Your task to perform on an android device: Search for the best pizza restaurants on Maps Image 0: 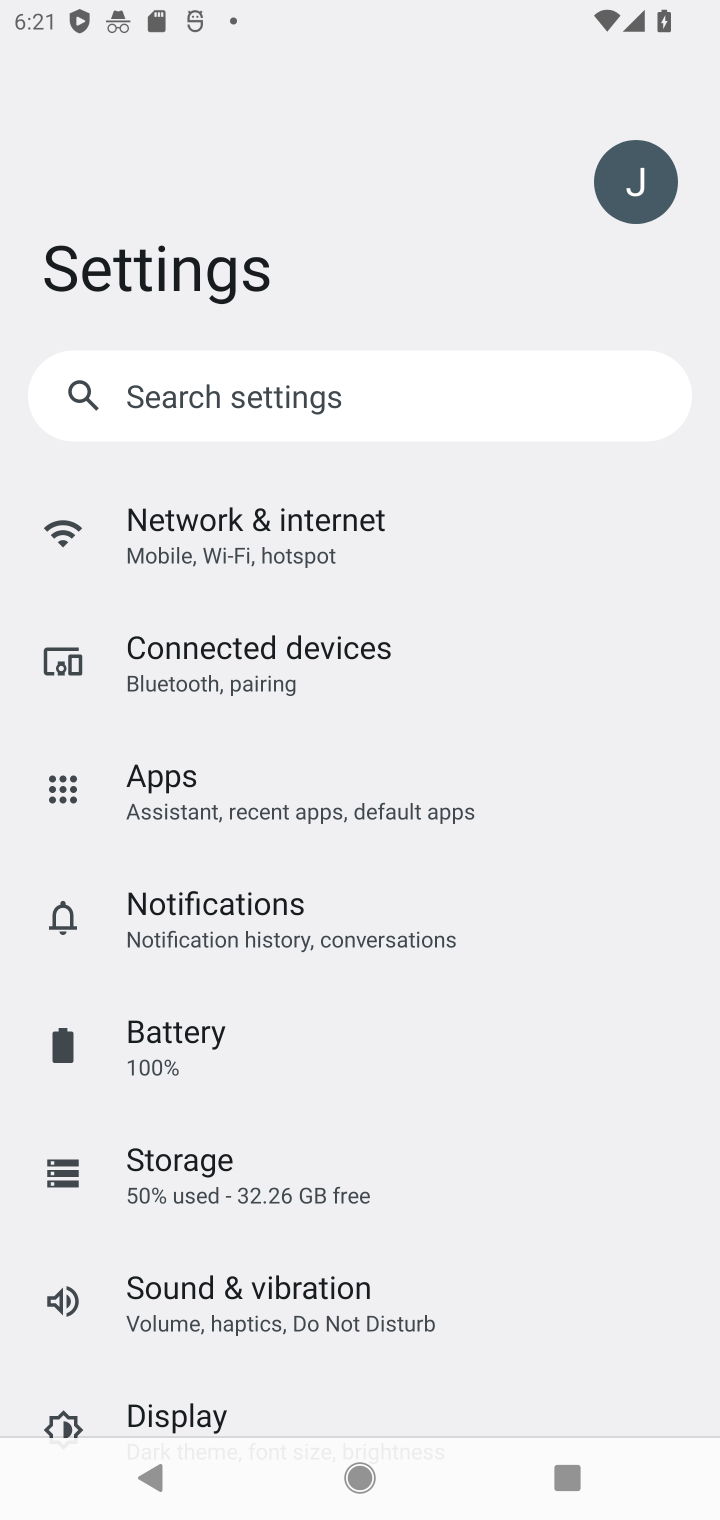
Step 0: press home button
Your task to perform on an android device: Search for the best pizza restaurants on Maps Image 1: 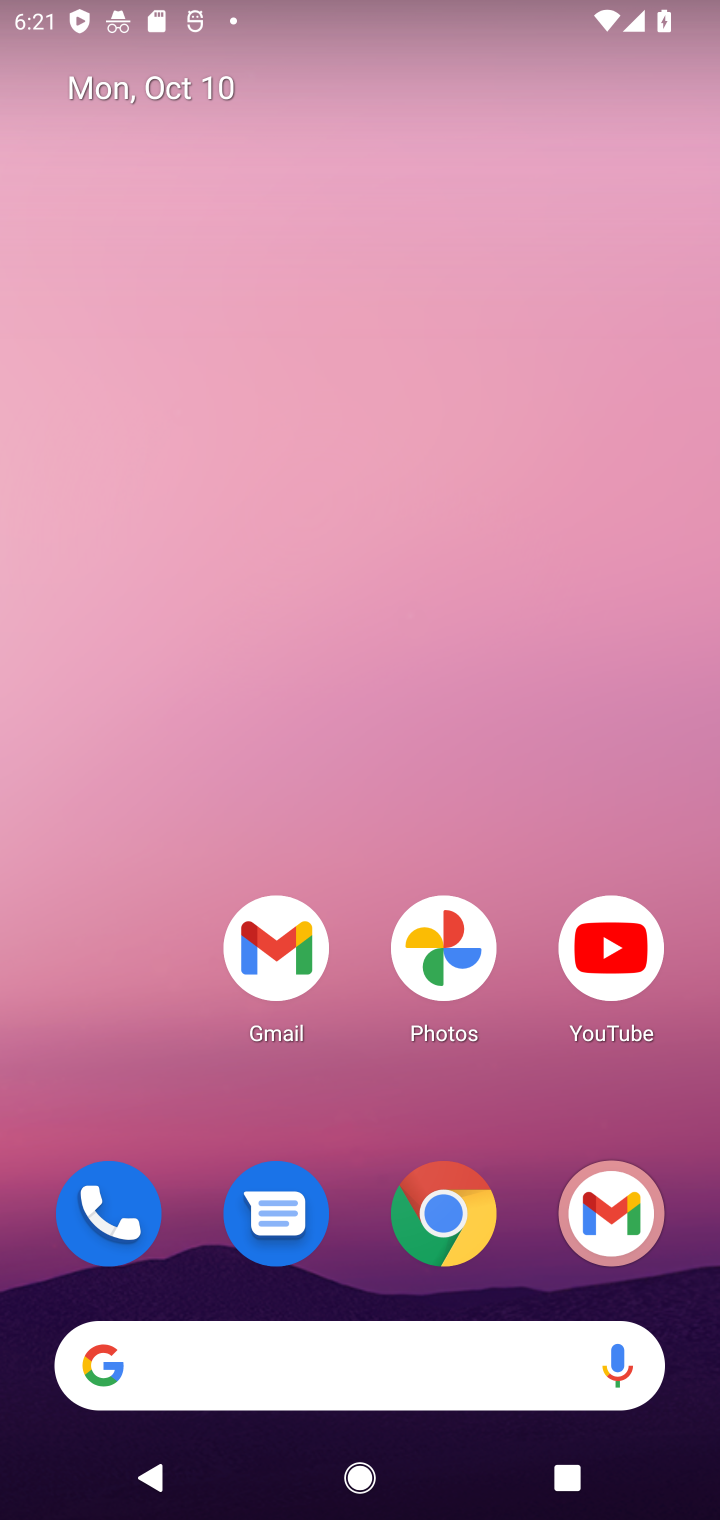
Step 1: drag from (264, 704) to (350, 118)
Your task to perform on an android device: Search for the best pizza restaurants on Maps Image 2: 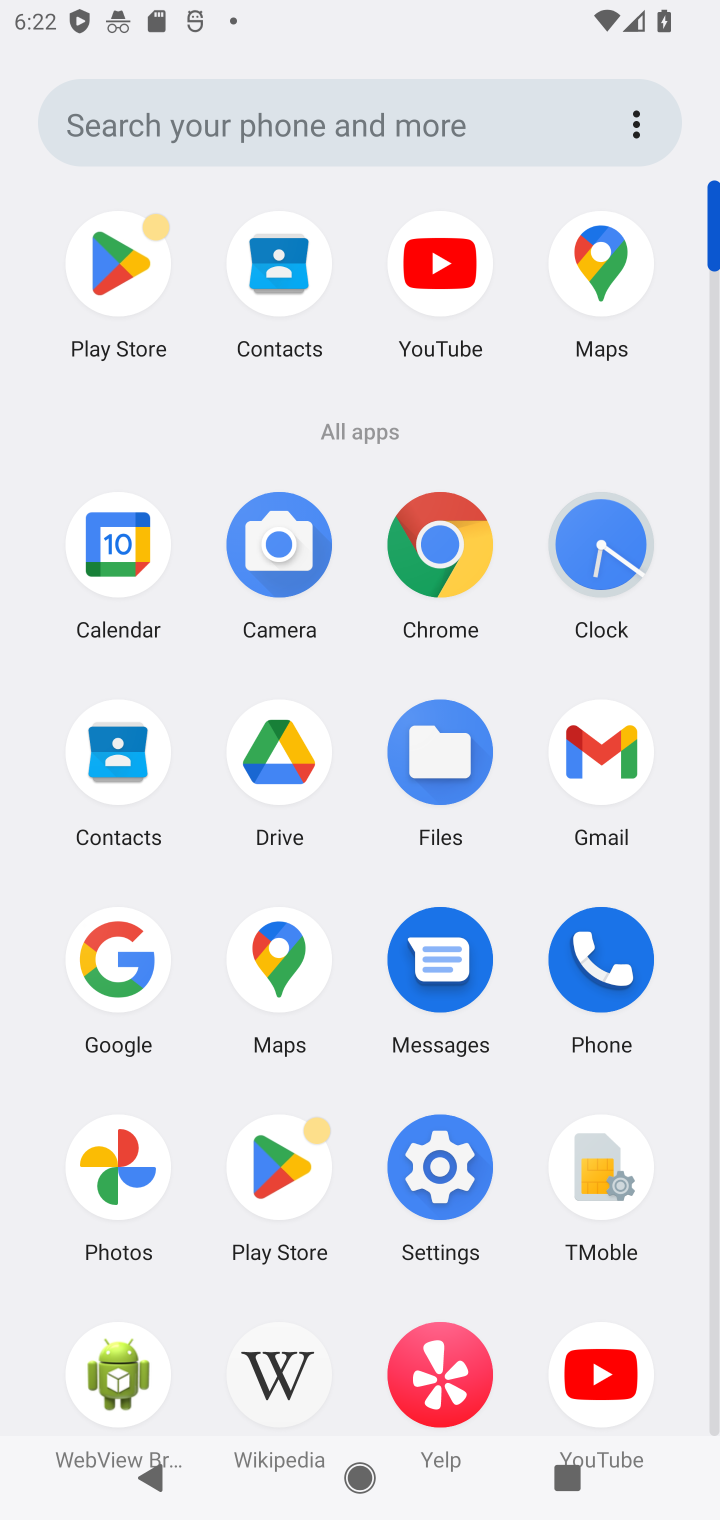
Step 2: click (598, 280)
Your task to perform on an android device: Search for the best pizza restaurants on Maps Image 3: 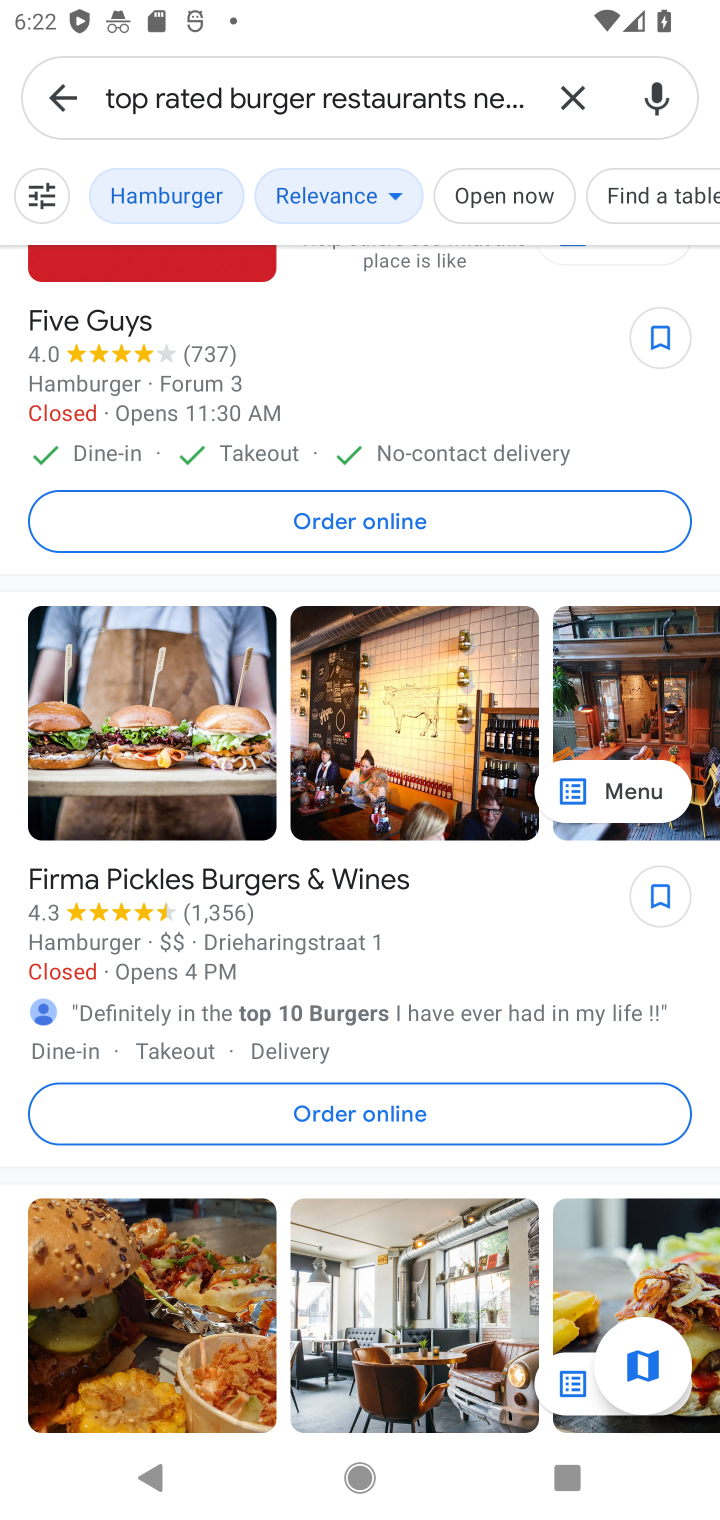
Step 3: click (553, 84)
Your task to perform on an android device: Search for the best pizza restaurants on Maps Image 4: 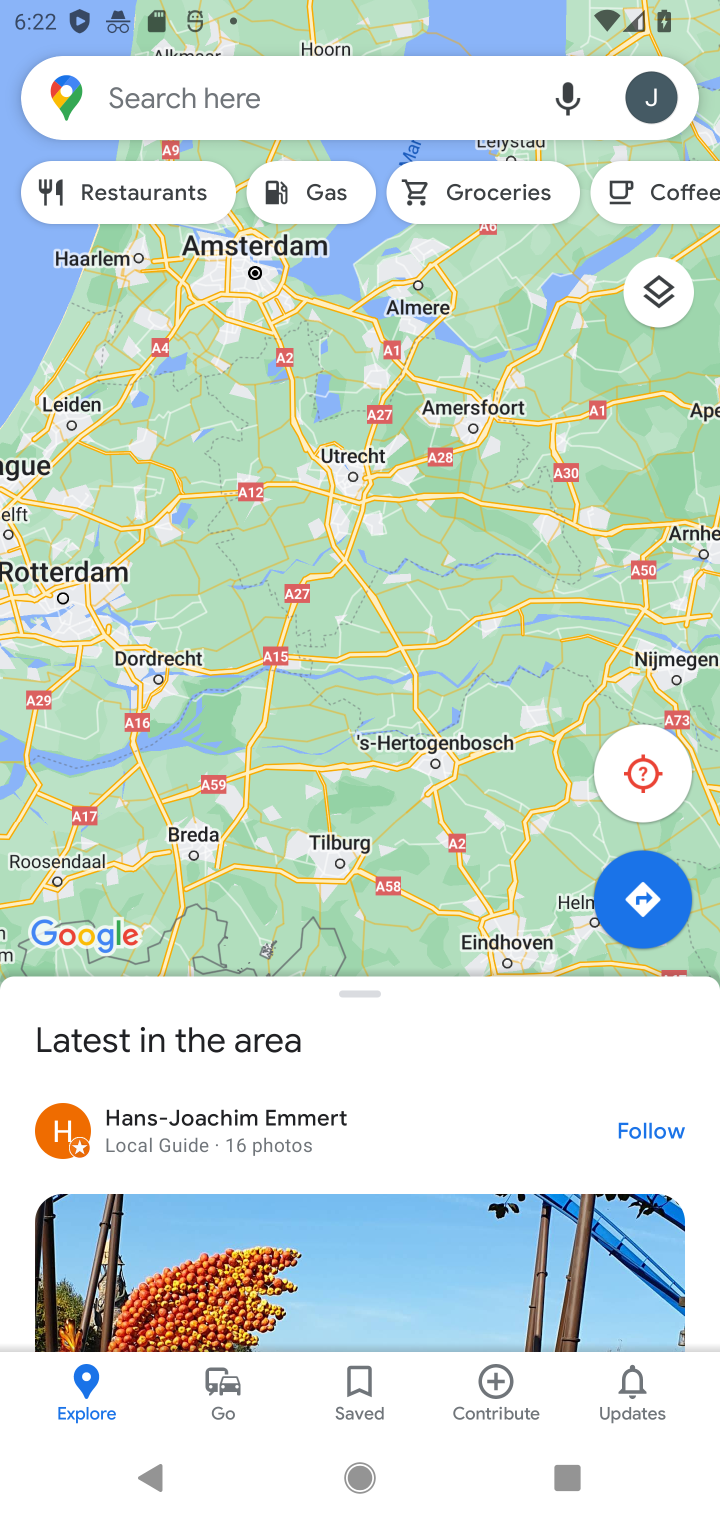
Step 4: click (167, 81)
Your task to perform on an android device: Search for the best pizza restaurants on Maps Image 5: 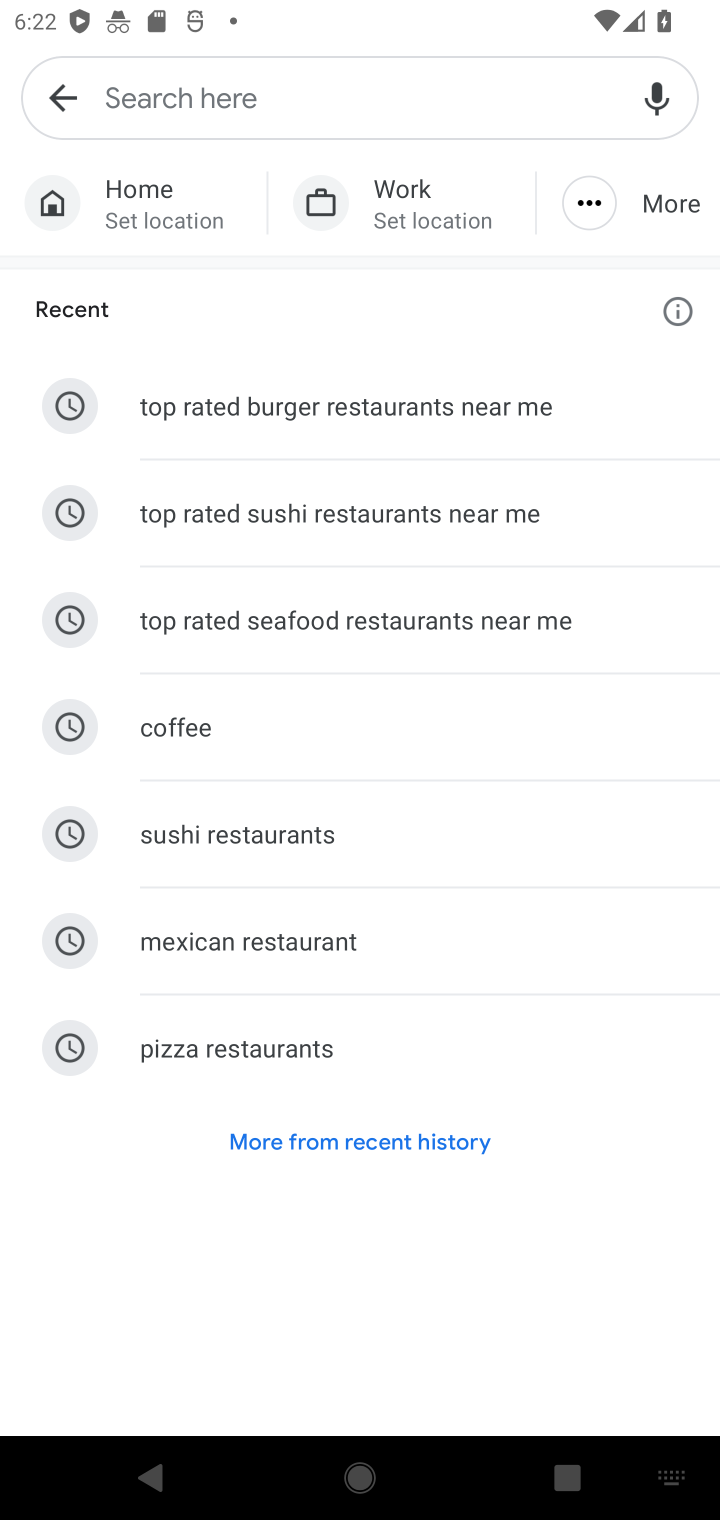
Step 5: click (206, 98)
Your task to perform on an android device: Search for the best pizza restaurants on Maps Image 6: 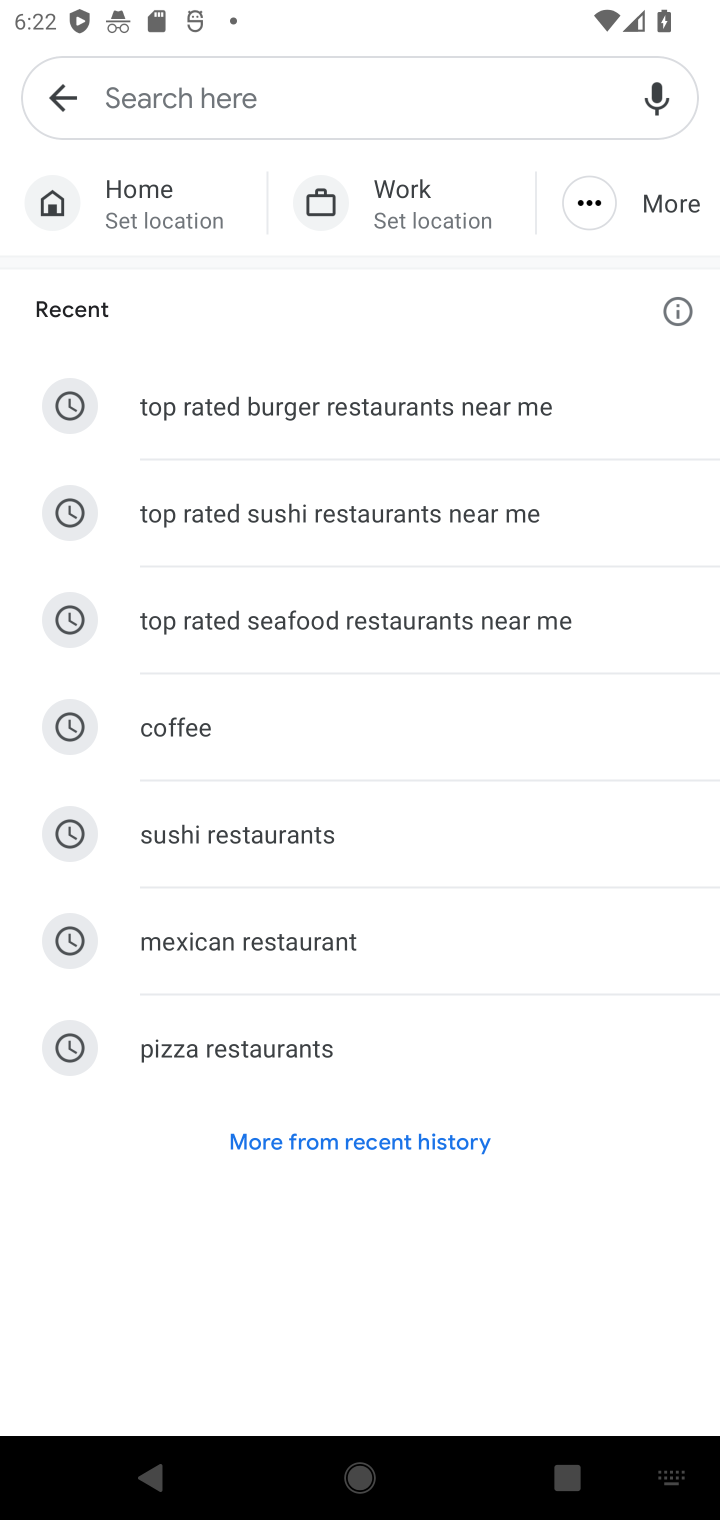
Step 6: type " pizza restaurants on Maps"
Your task to perform on an android device: Search for the best pizza restaurants on Maps Image 7: 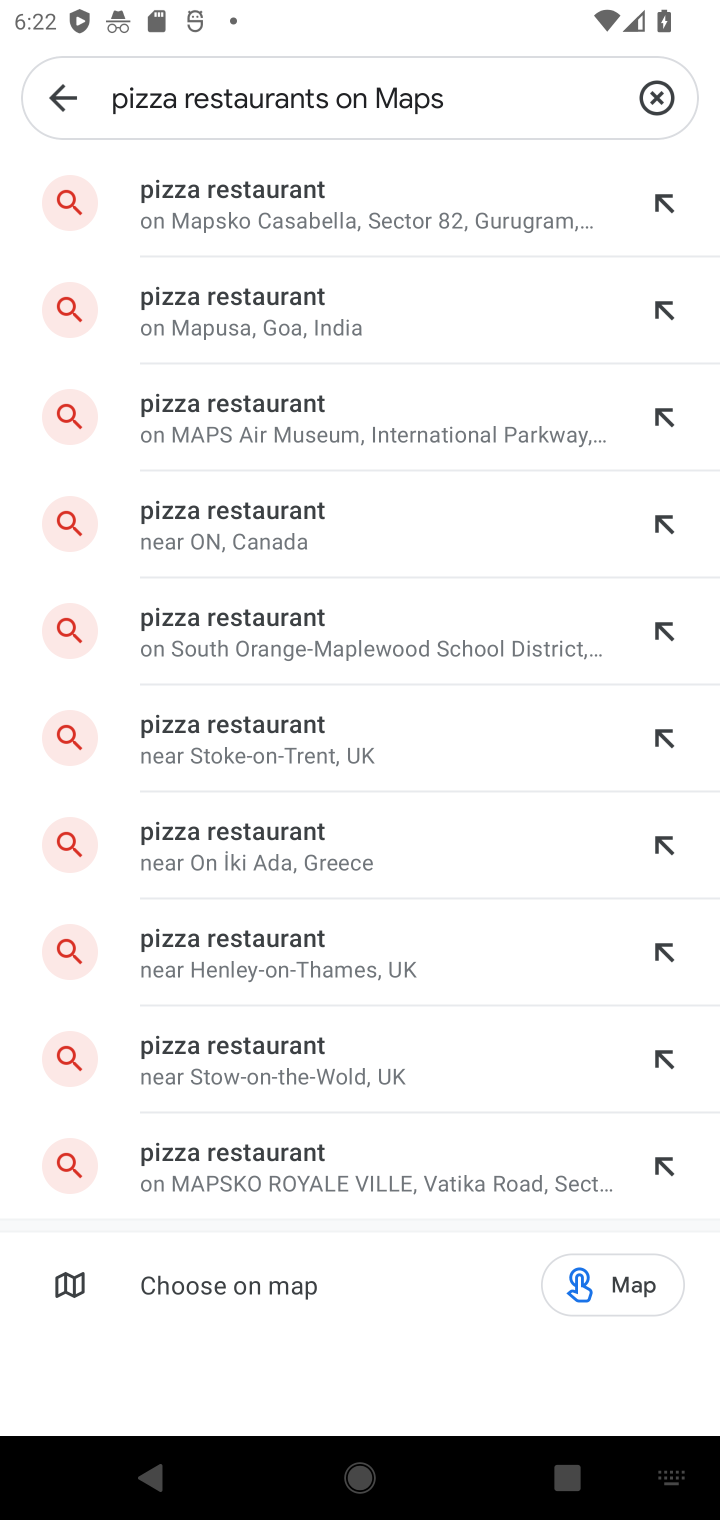
Step 7: click (294, 206)
Your task to perform on an android device: Search for the best pizza restaurants on Maps Image 8: 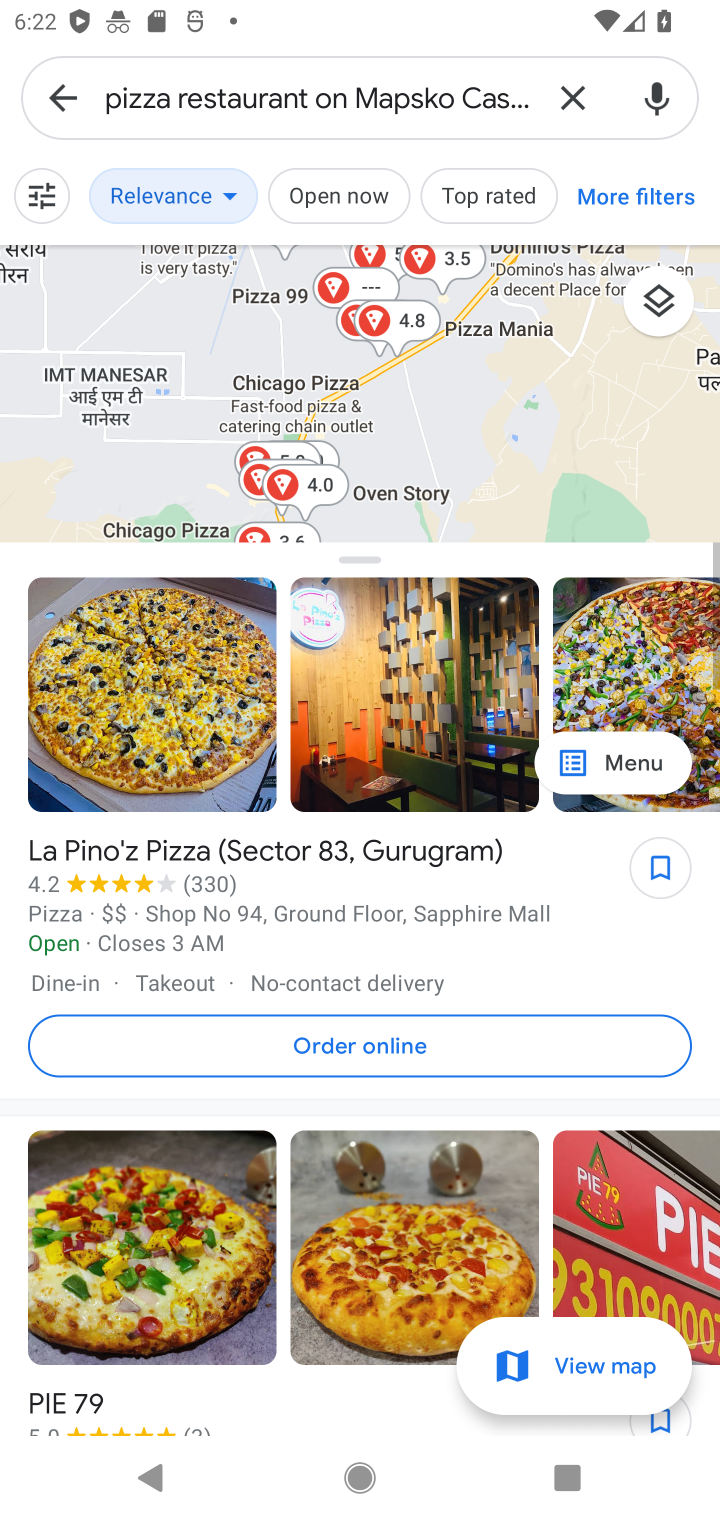
Step 8: task complete